Your task to perform on an android device: delete browsing data in the chrome app Image 0: 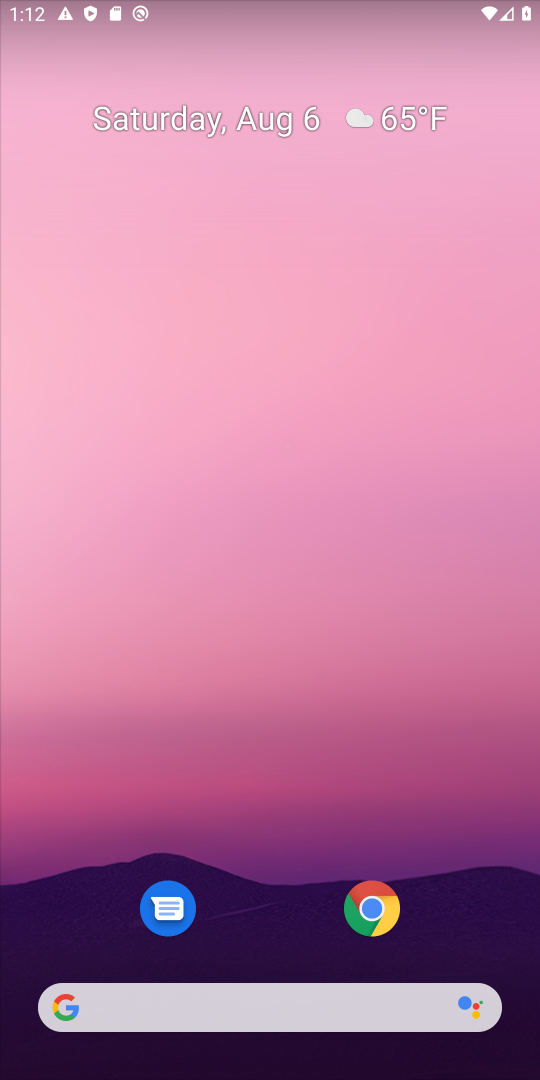
Step 0: click (377, 913)
Your task to perform on an android device: delete browsing data in the chrome app Image 1: 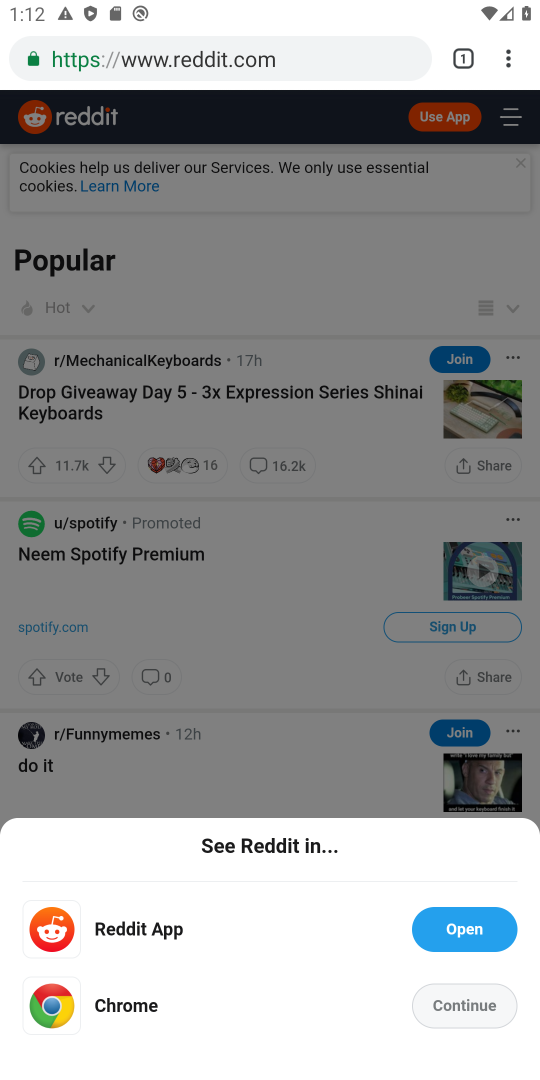
Step 1: click (516, 54)
Your task to perform on an android device: delete browsing data in the chrome app Image 2: 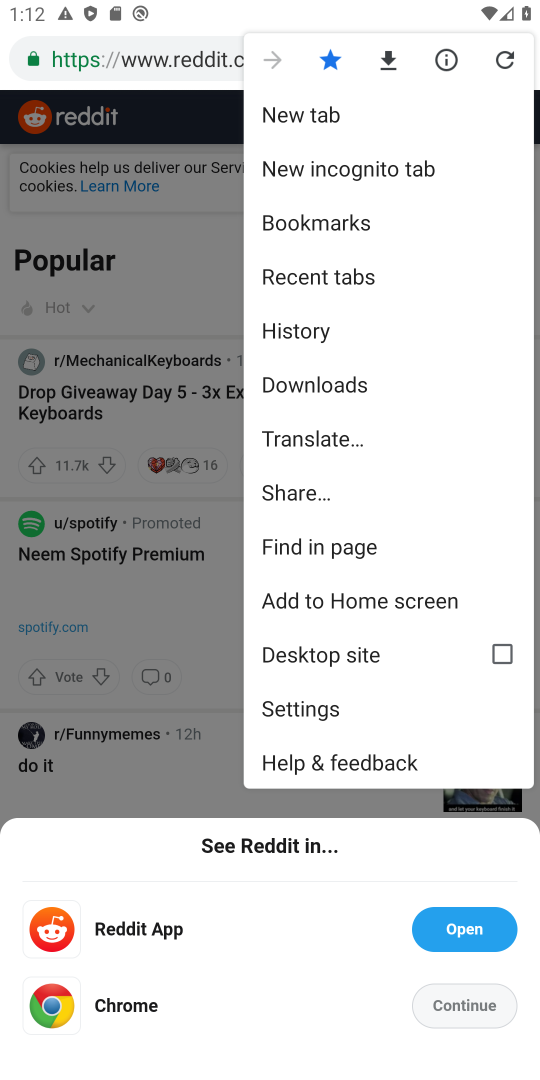
Step 2: click (332, 334)
Your task to perform on an android device: delete browsing data in the chrome app Image 3: 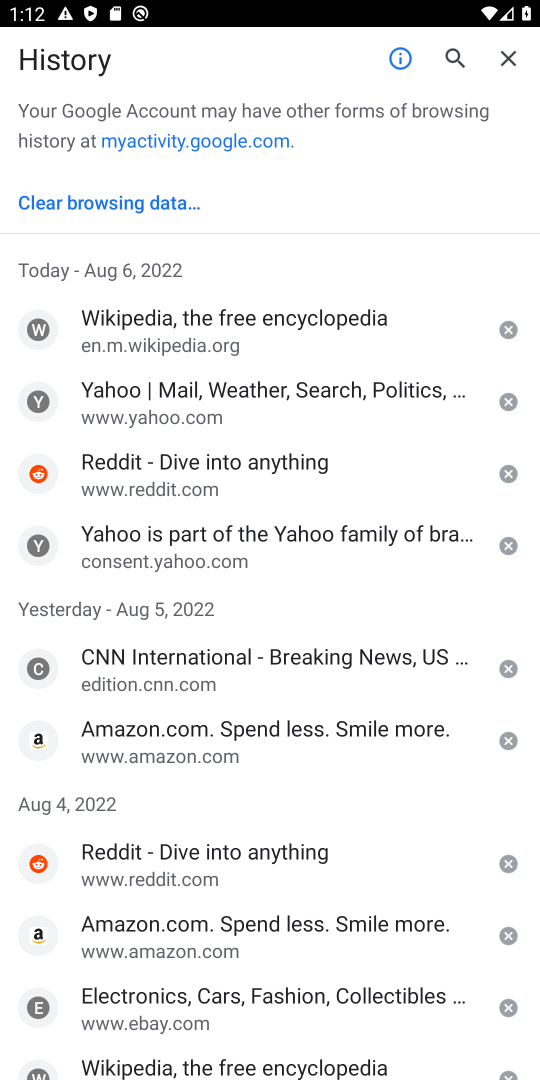
Step 3: click (87, 208)
Your task to perform on an android device: delete browsing data in the chrome app Image 4: 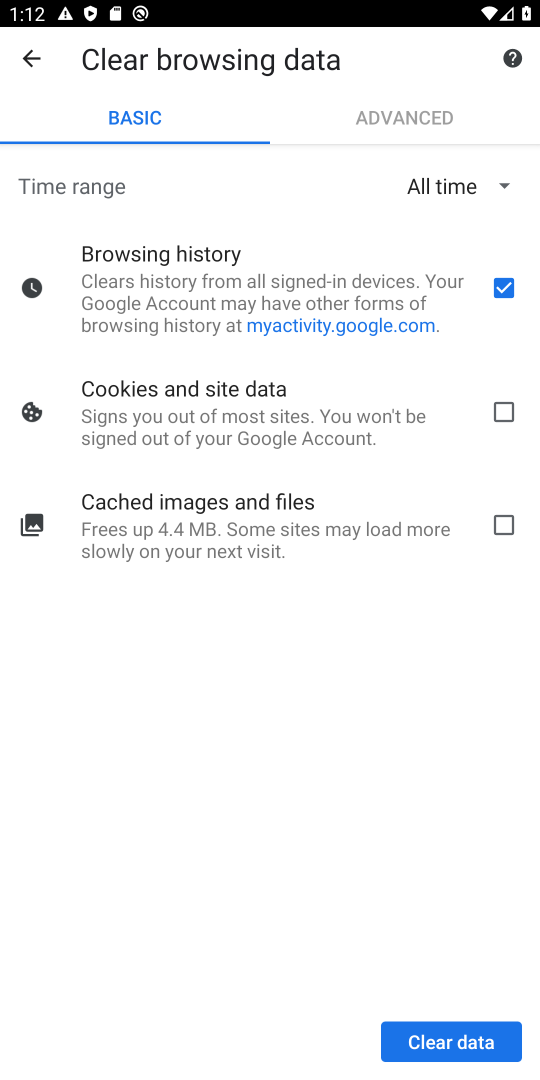
Step 4: click (503, 405)
Your task to perform on an android device: delete browsing data in the chrome app Image 5: 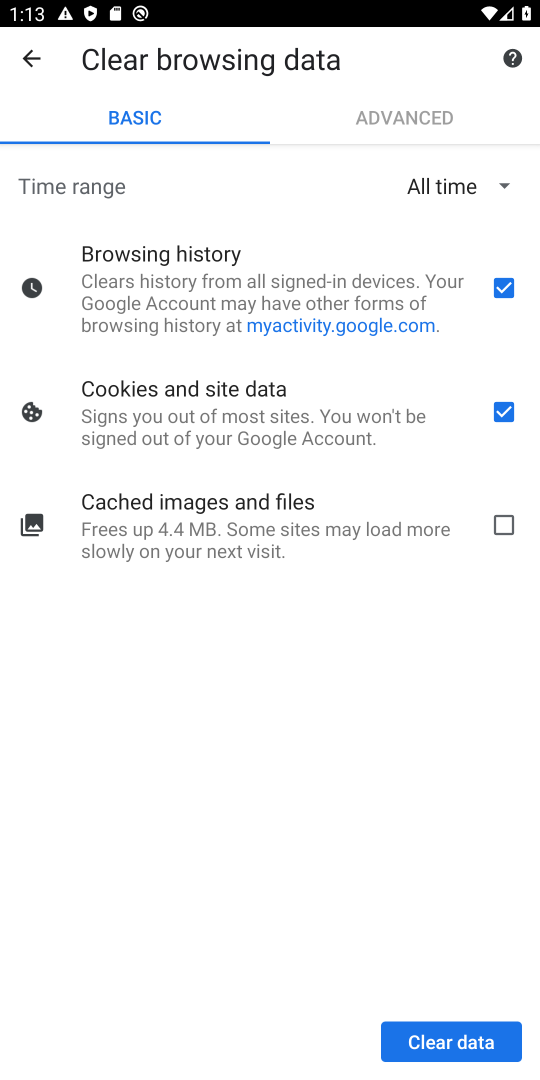
Step 5: click (503, 521)
Your task to perform on an android device: delete browsing data in the chrome app Image 6: 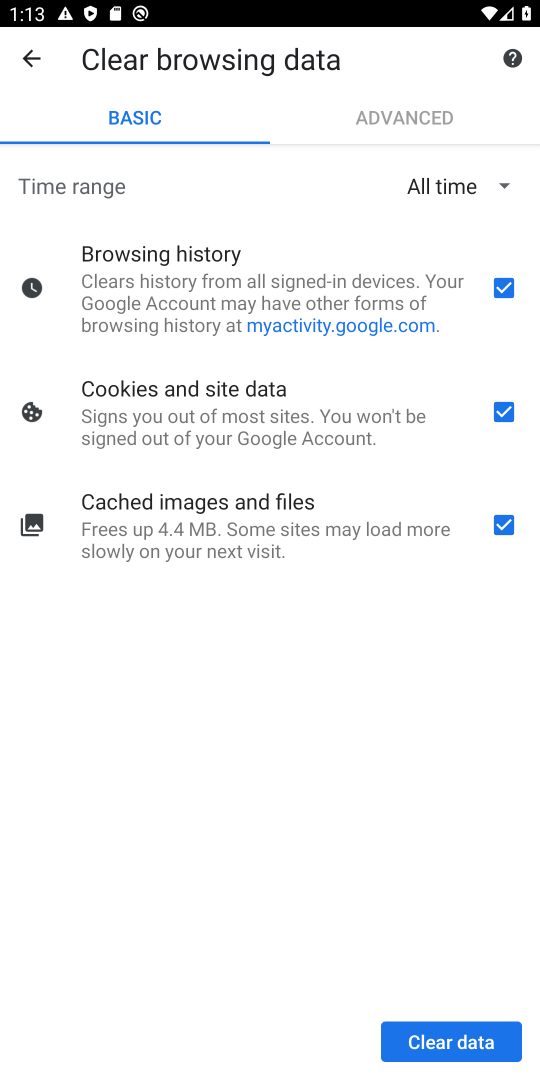
Step 6: click (447, 1045)
Your task to perform on an android device: delete browsing data in the chrome app Image 7: 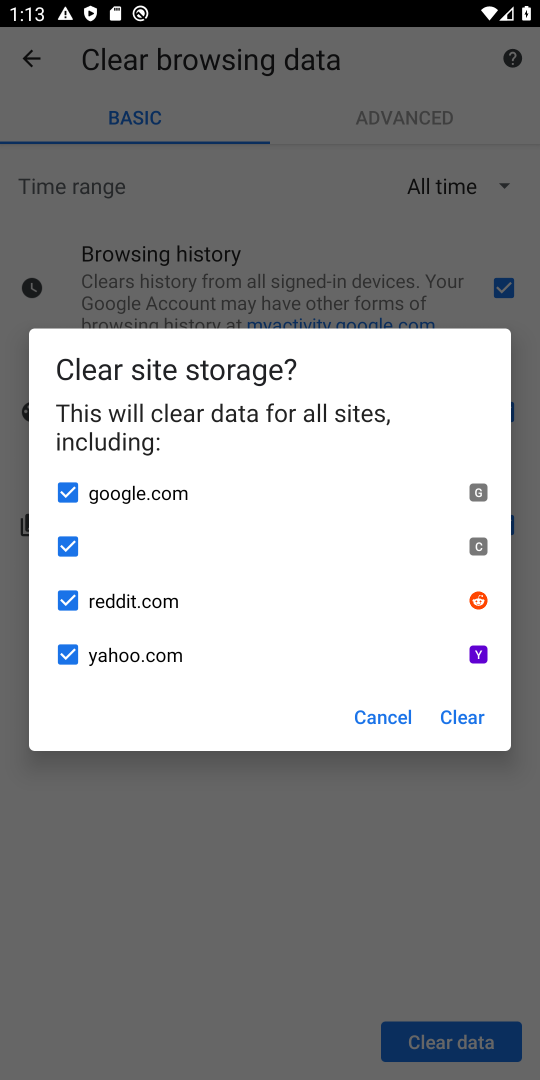
Step 7: click (476, 717)
Your task to perform on an android device: delete browsing data in the chrome app Image 8: 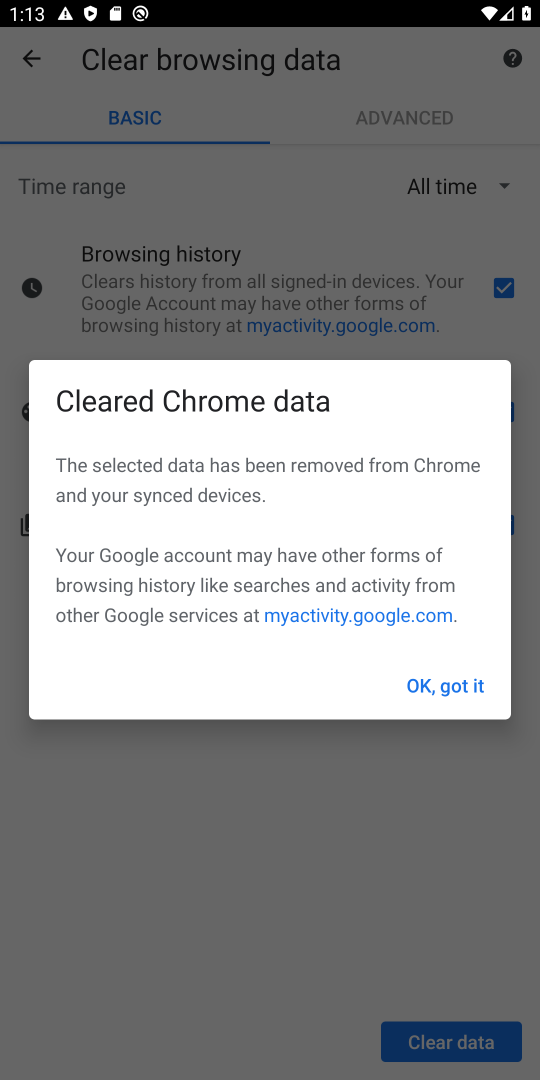
Step 8: click (464, 688)
Your task to perform on an android device: delete browsing data in the chrome app Image 9: 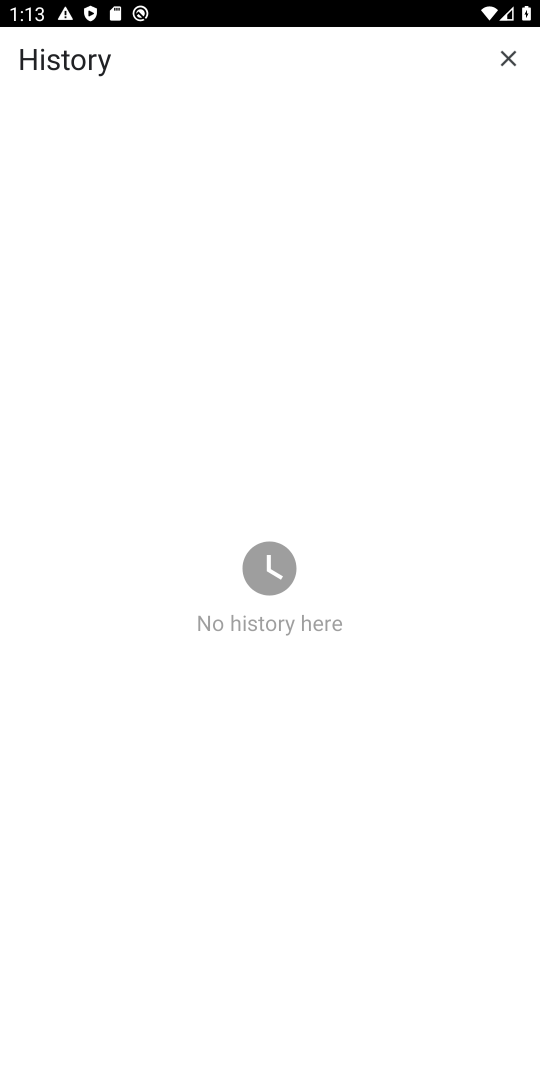
Step 9: task complete